Your task to perform on an android device: Check the weather Image 0: 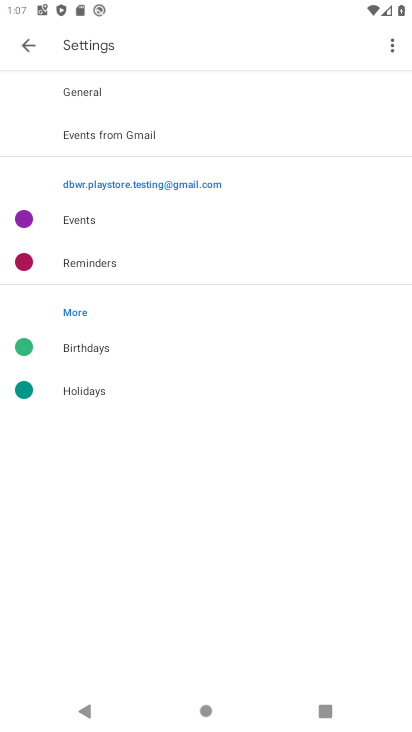
Step 0: press home button
Your task to perform on an android device: Check the weather Image 1: 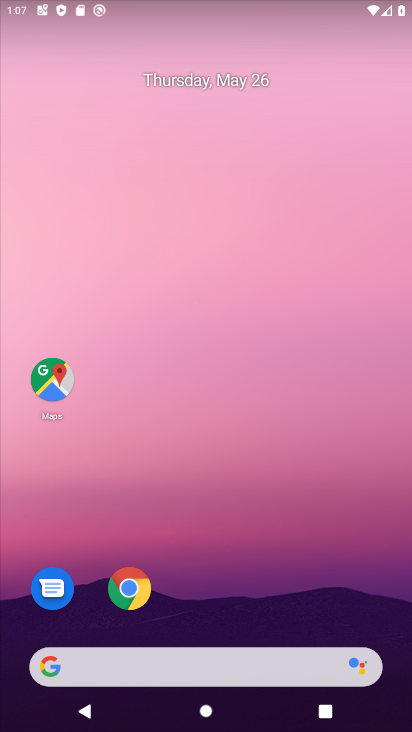
Step 1: task complete